Your task to perform on an android device: Show me popular games on the Play Store Image 0: 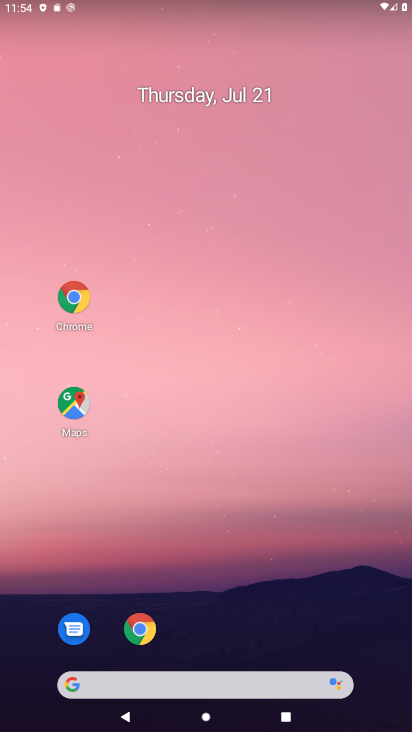
Step 0: press back button
Your task to perform on an android device: Show me popular games on the Play Store Image 1: 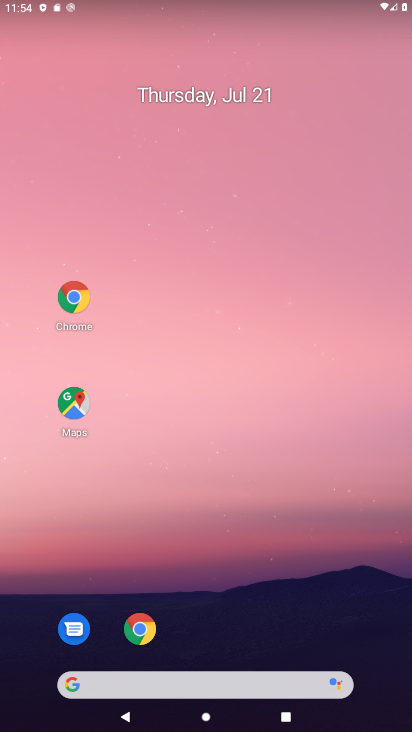
Step 1: drag from (249, 663) to (263, 150)
Your task to perform on an android device: Show me popular games on the Play Store Image 2: 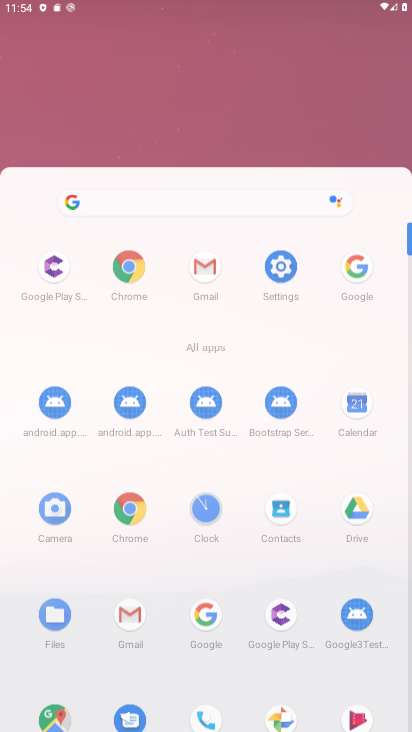
Step 2: drag from (260, 553) to (214, 224)
Your task to perform on an android device: Show me popular games on the Play Store Image 3: 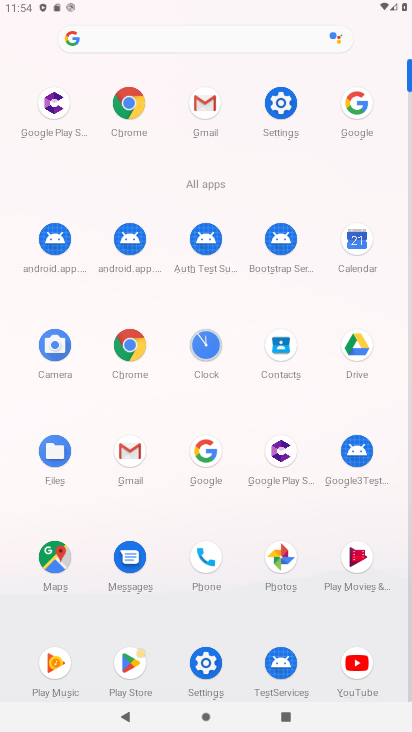
Step 3: click (134, 668)
Your task to perform on an android device: Show me popular games on the Play Store Image 4: 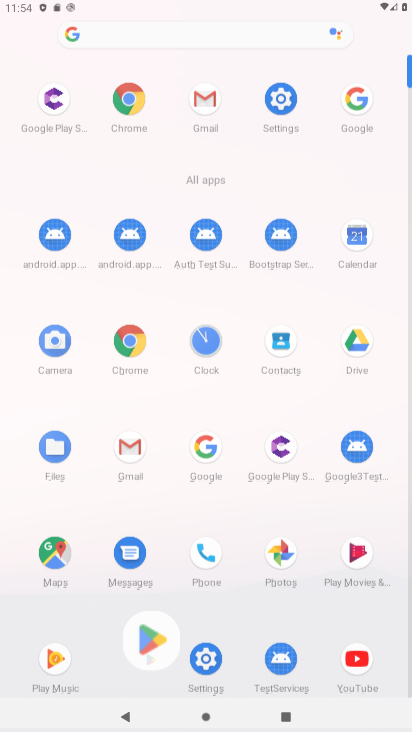
Step 4: click (129, 670)
Your task to perform on an android device: Show me popular games on the Play Store Image 5: 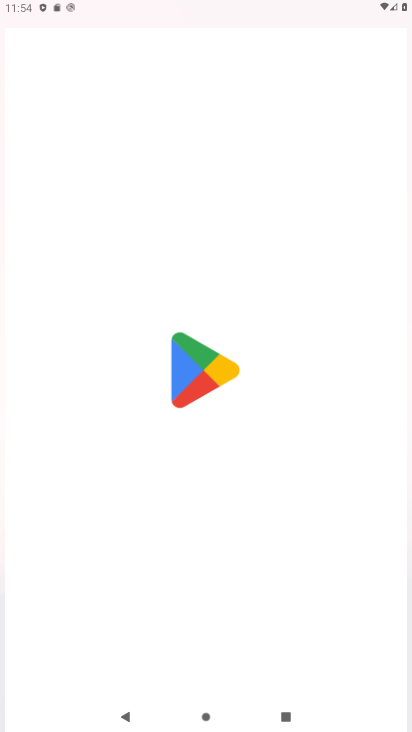
Step 5: click (140, 678)
Your task to perform on an android device: Show me popular games on the Play Store Image 6: 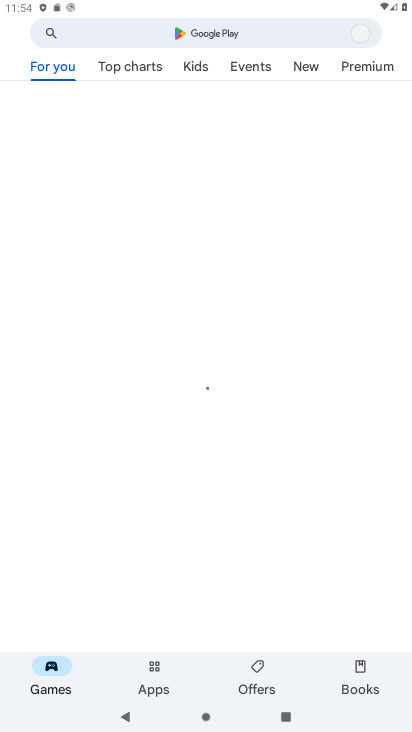
Step 6: press back button
Your task to perform on an android device: Show me popular games on the Play Store Image 7: 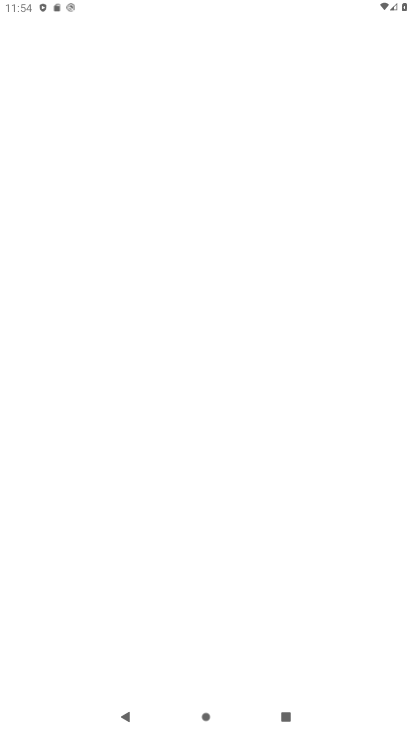
Step 7: press back button
Your task to perform on an android device: Show me popular games on the Play Store Image 8: 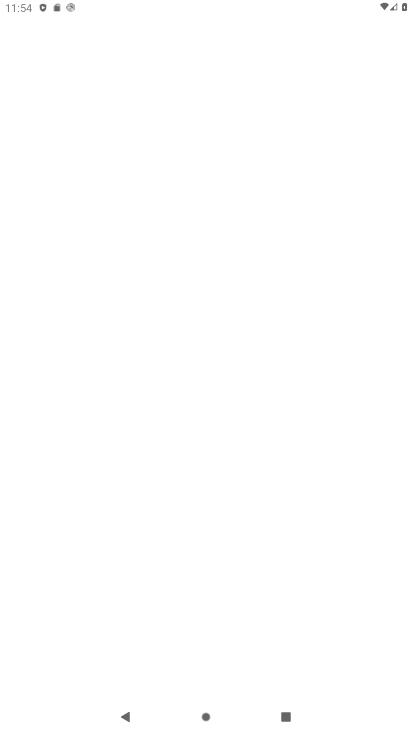
Step 8: click (262, 40)
Your task to perform on an android device: Show me popular games on the Play Store Image 9: 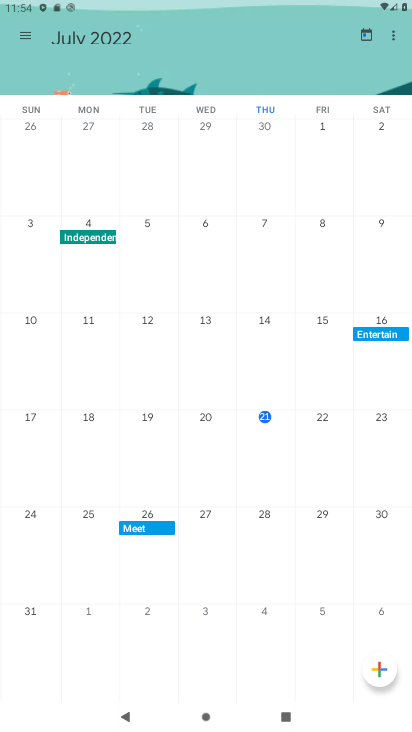
Step 9: click (146, 52)
Your task to perform on an android device: Show me popular games on the Play Store Image 10: 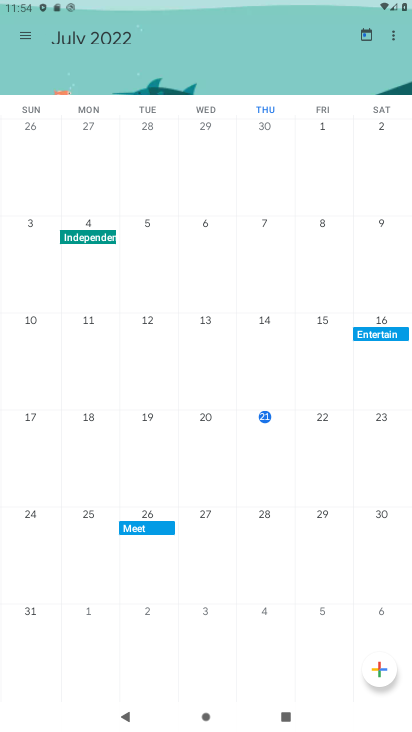
Step 10: press back button
Your task to perform on an android device: Show me popular games on the Play Store Image 11: 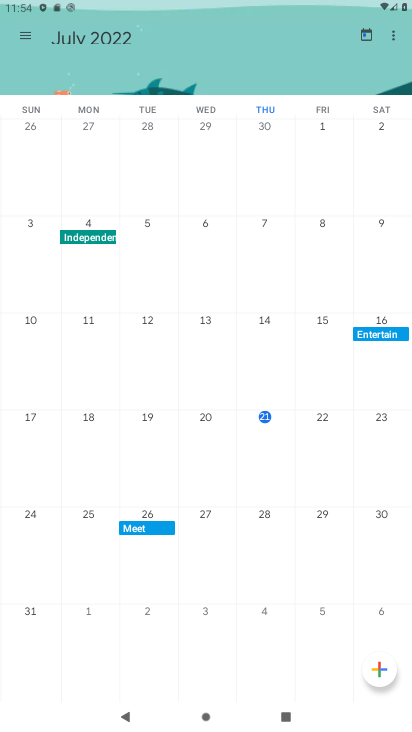
Step 11: press back button
Your task to perform on an android device: Show me popular games on the Play Store Image 12: 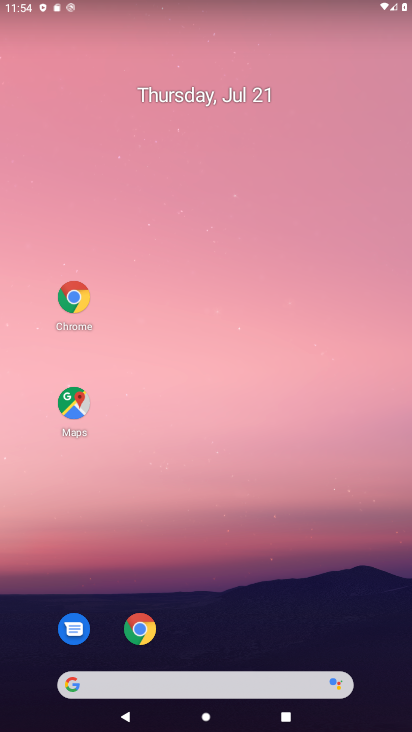
Step 12: click (148, 204)
Your task to perform on an android device: Show me popular games on the Play Store Image 13: 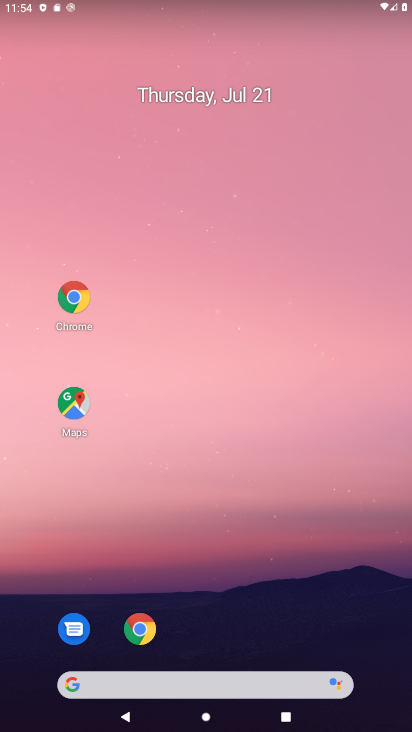
Step 13: drag from (195, 488) to (195, 186)
Your task to perform on an android device: Show me popular games on the Play Store Image 14: 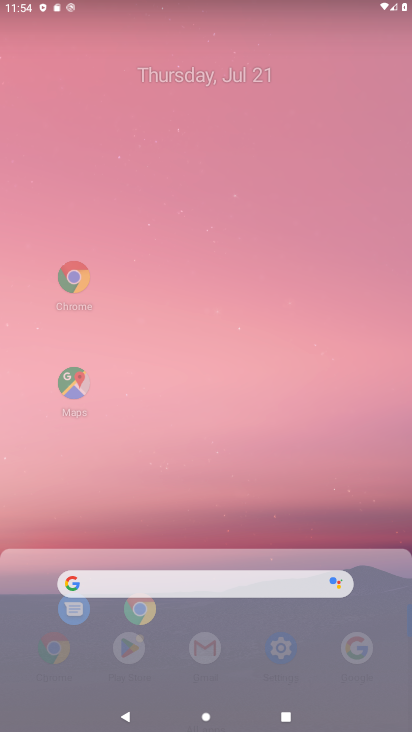
Step 14: drag from (245, 516) to (245, 120)
Your task to perform on an android device: Show me popular games on the Play Store Image 15: 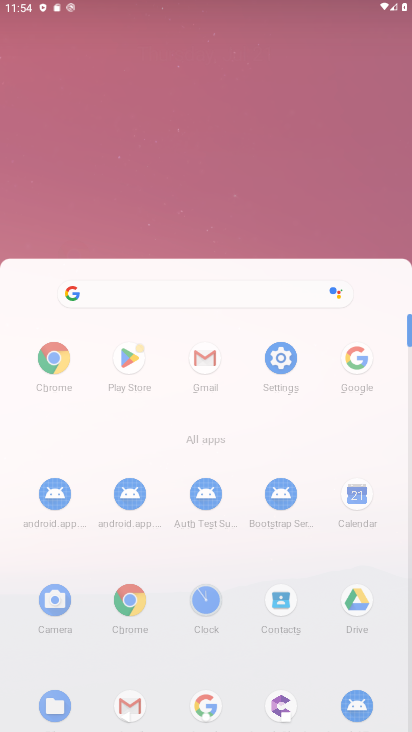
Step 15: drag from (305, 435) to (262, 92)
Your task to perform on an android device: Show me popular games on the Play Store Image 16: 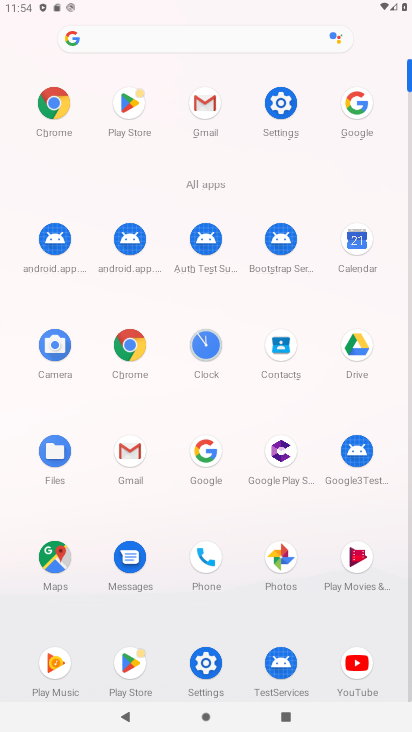
Step 16: click (127, 662)
Your task to perform on an android device: Show me popular games on the Play Store Image 17: 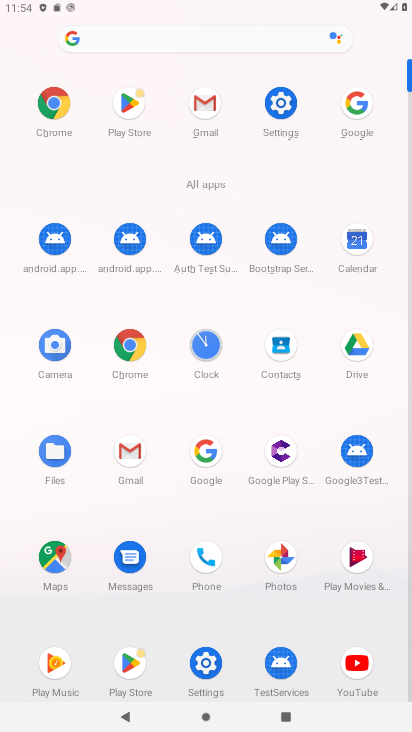
Step 17: click (138, 653)
Your task to perform on an android device: Show me popular games on the Play Store Image 18: 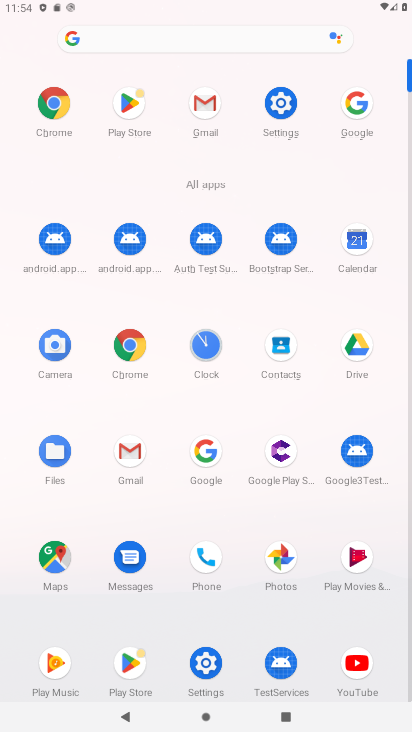
Step 18: click (146, 658)
Your task to perform on an android device: Show me popular games on the Play Store Image 19: 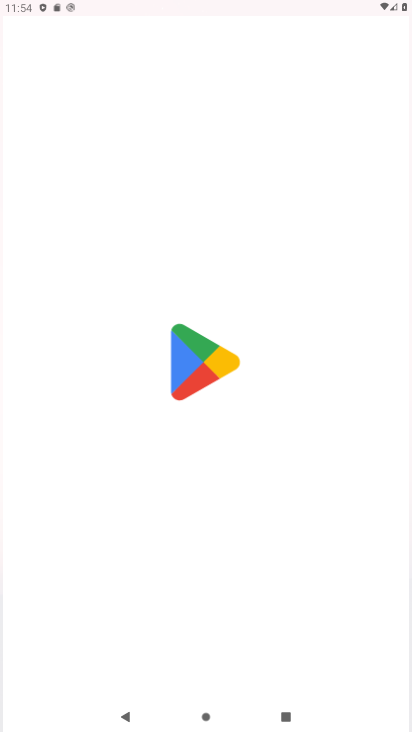
Step 19: click (142, 650)
Your task to perform on an android device: Show me popular games on the Play Store Image 20: 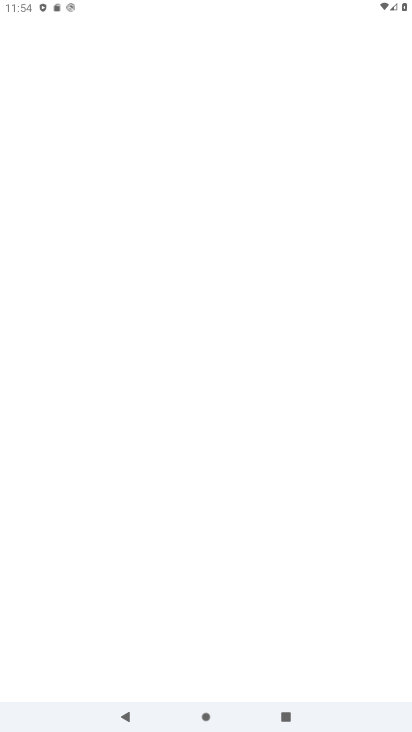
Step 20: click (137, 652)
Your task to perform on an android device: Show me popular games on the Play Store Image 21: 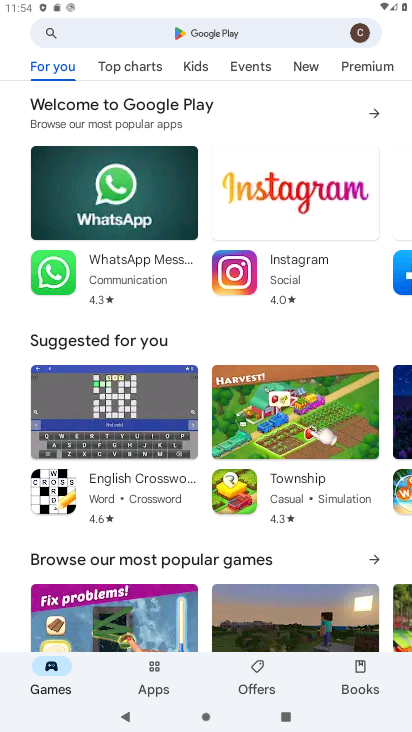
Step 21: click (113, 47)
Your task to perform on an android device: Show me popular games on the Play Store Image 22: 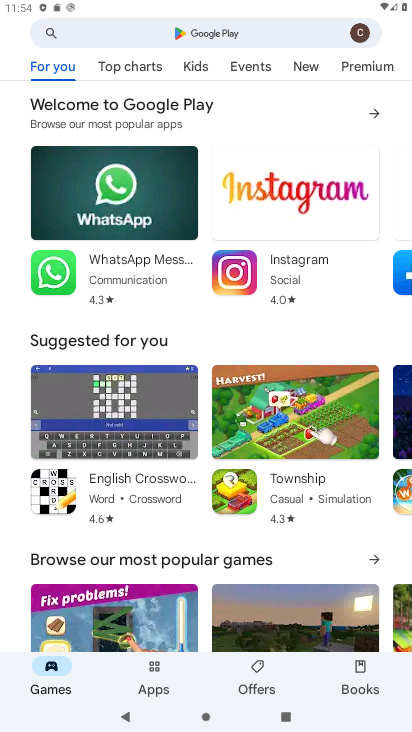
Step 22: click (111, 46)
Your task to perform on an android device: Show me popular games on the Play Store Image 23: 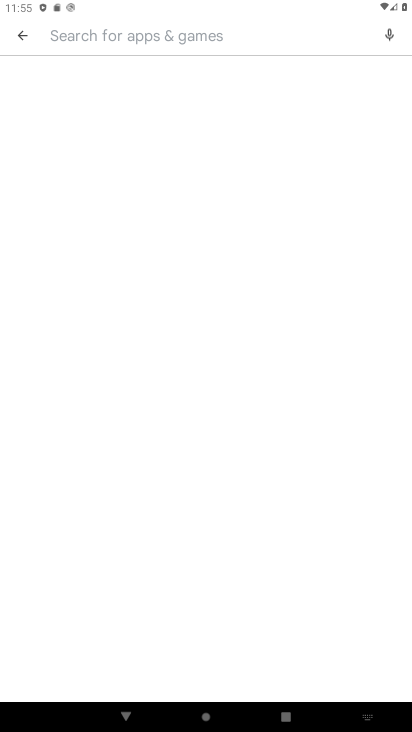
Step 23: type "popular games"
Your task to perform on an android device: Show me popular games on the Play Store Image 24: 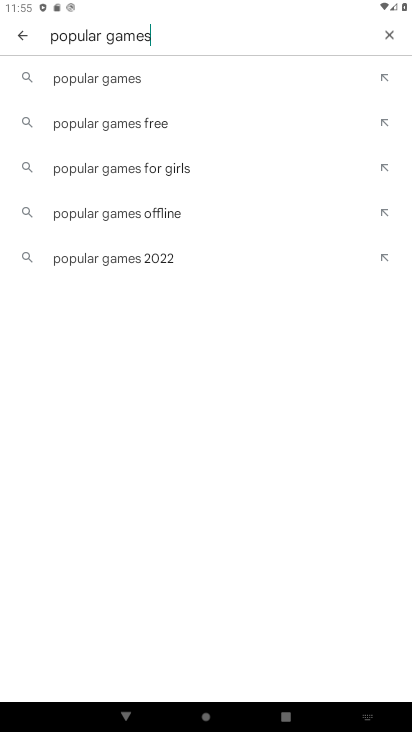
Step 24: click (98, 73)
Your task to perform on an android device: Show me popular games on the Play Store Image 25: 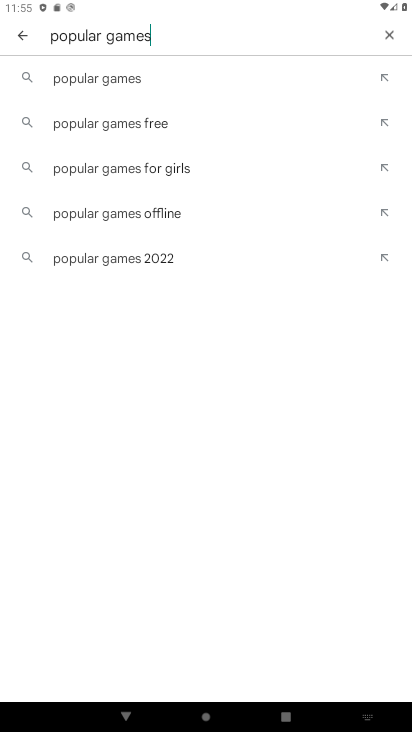
Step 25: click (98, 73)
Your task to perform on an android device: Show me popular games on the Play Store Image 26: 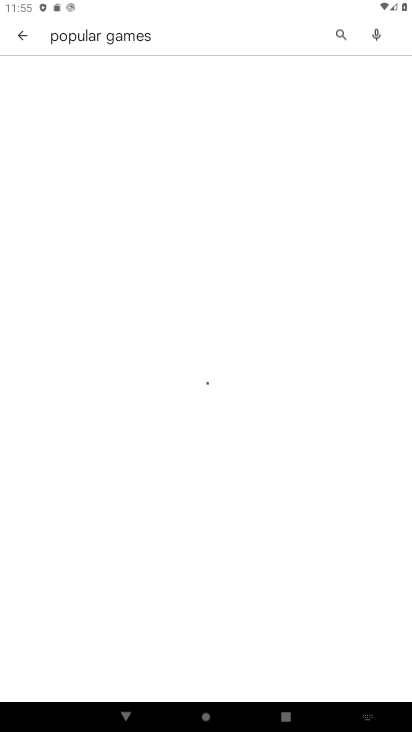
Step 26: click (109, 80)
Your task to perform on an android device: Show me popular games on the Play Store Image 27: 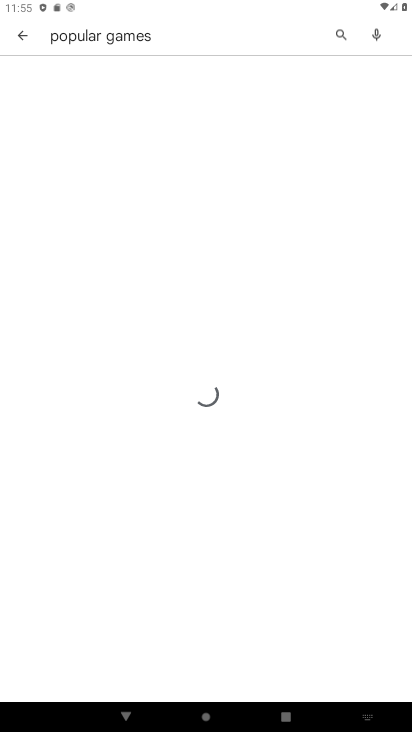
Step 27: click (114, 83)
Your task to perform on an android device: Show me popular games on the Play Store Image 28: 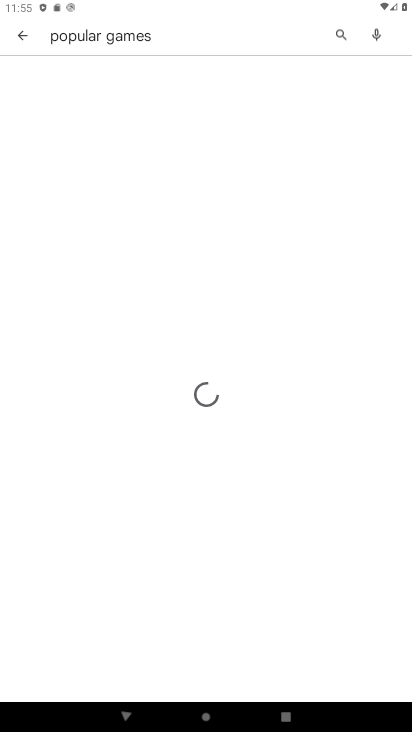
Step 28: click (114, 84)
Your task to perform on an android device: Show me popular games on the Play Store Image 29: 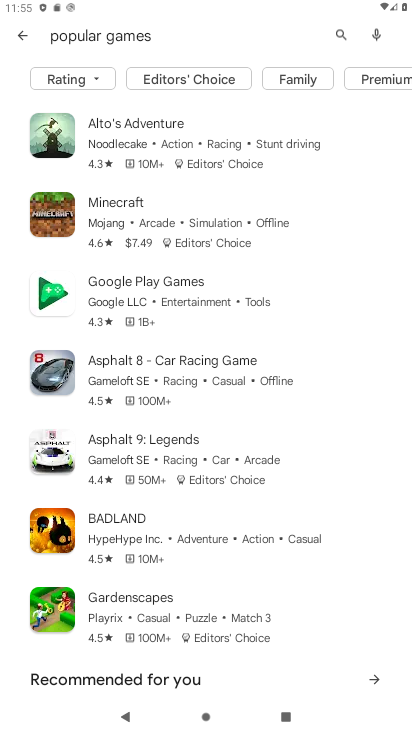
Step 29: task complete